Your task to perform on an android device: Open settings Image 0: 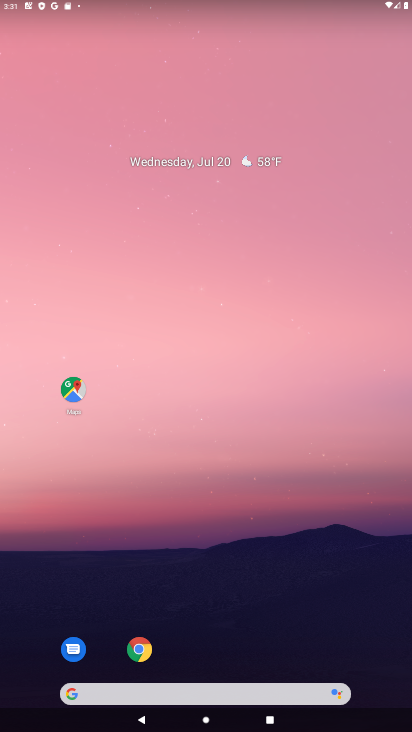
Step 0: drag from (234, 718) to (241, 197)
Your task to perform on an android device: Open settings Image 1: 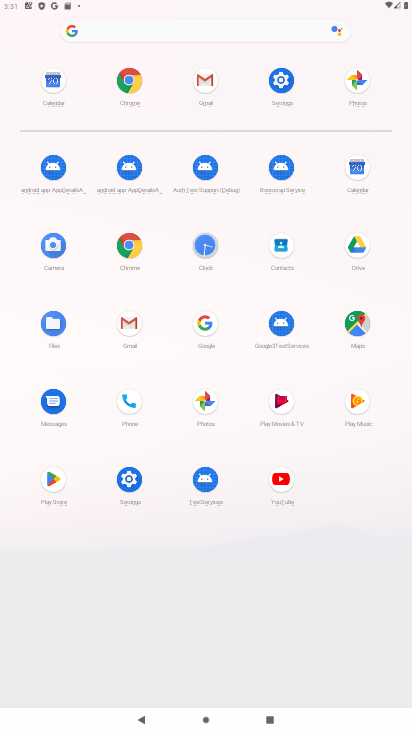
Step 1: click (282, 79)
Your task to perform on an android device: Open settings Image 2: 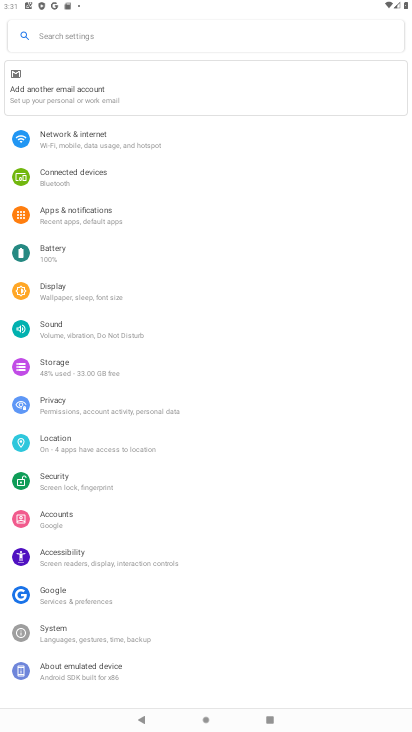
Step 2: task complete